Your task to perform on an android device: What is the recent news? Image 0: 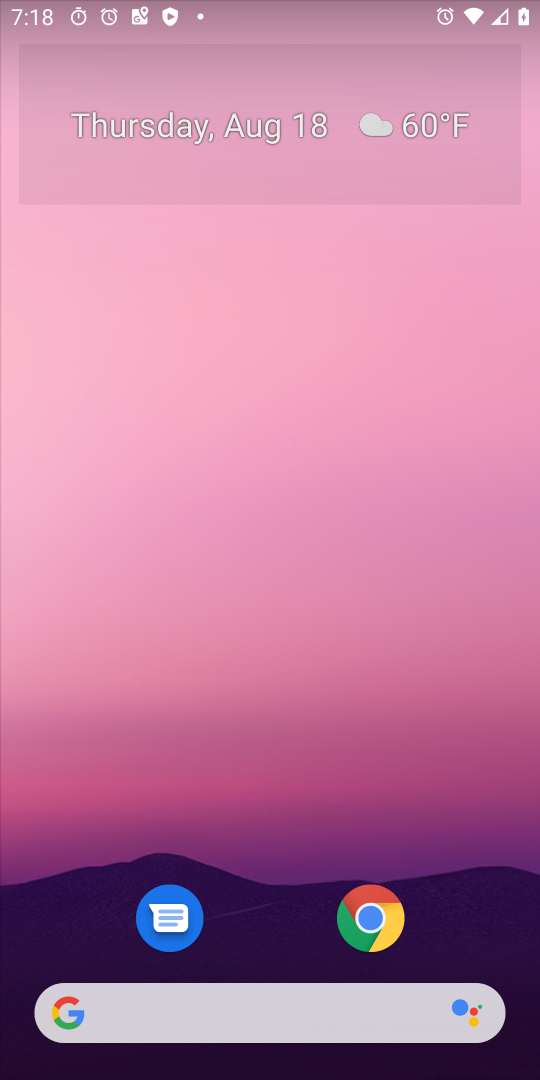
Step 0: press home button
Your task to perform on an android device: What is the recent news? Image 1: 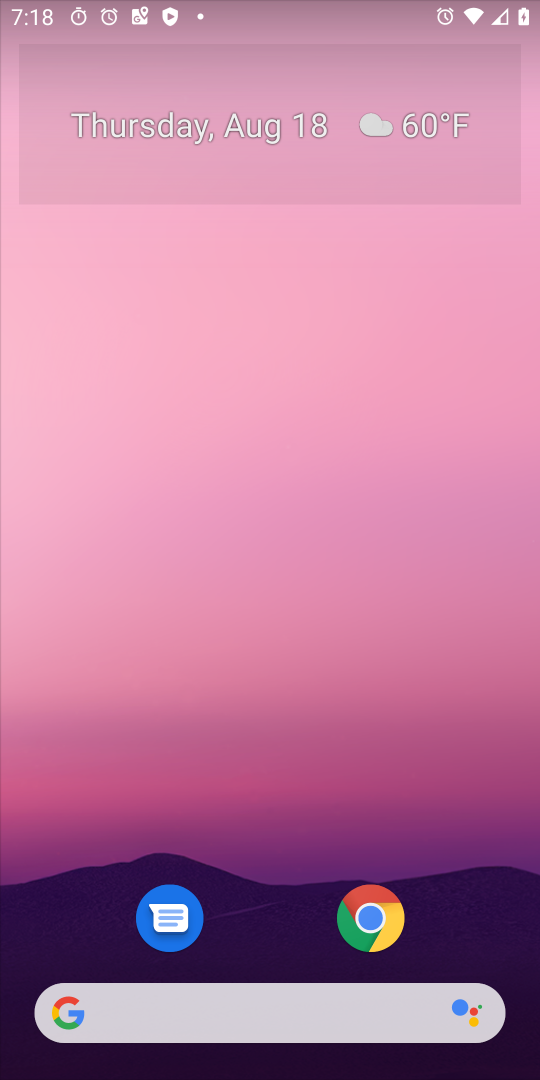
Step 1: click (70, 1021)
Your task to perform on an android device: What is the recent news? Image 2: 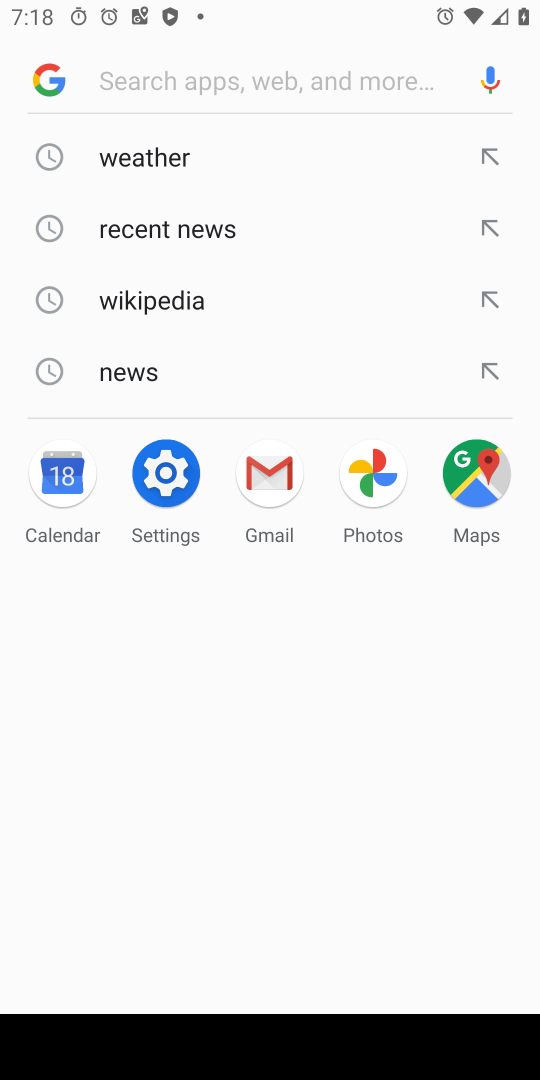
Step 2: click (155, 231)
Your task to perform on an android device: What is the recent news? Image 3: 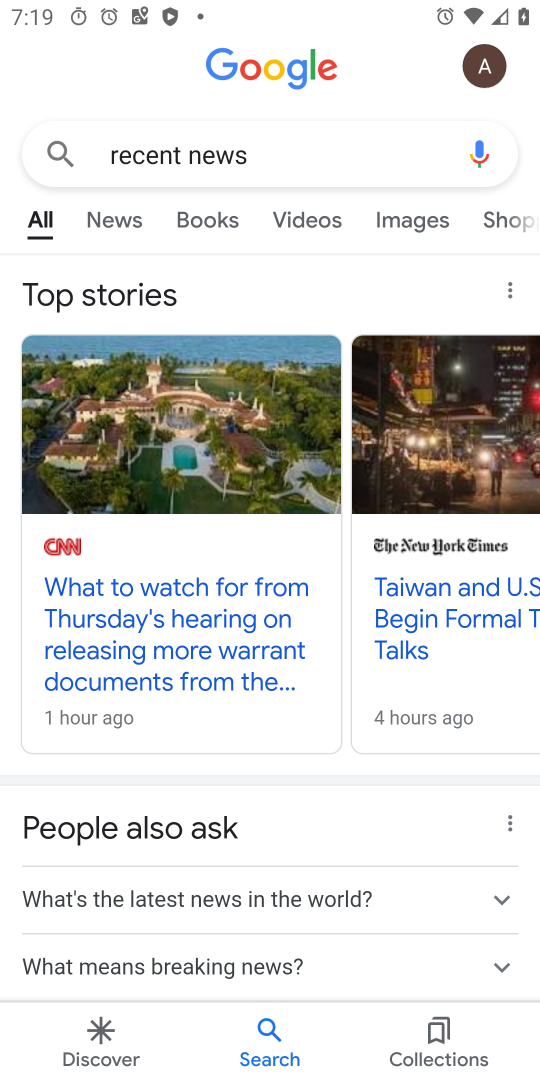
Step 3: task complete